Your task to perform on an android device: Show me popular games on the Play Store Image 0: 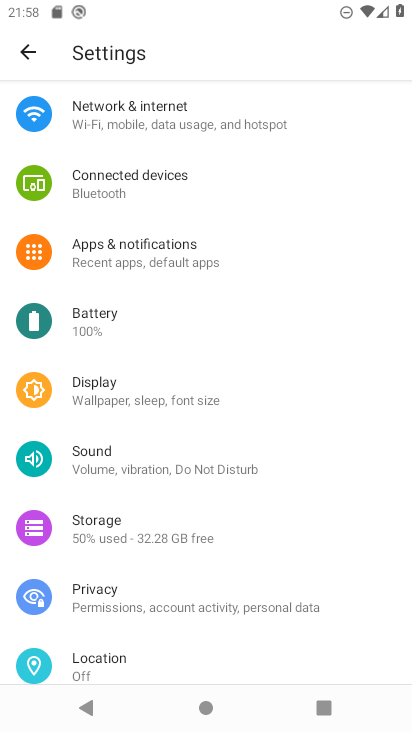
Step 0: press home button
Your task to perform on an android device: Show me popular games on the Play Store Image 1: 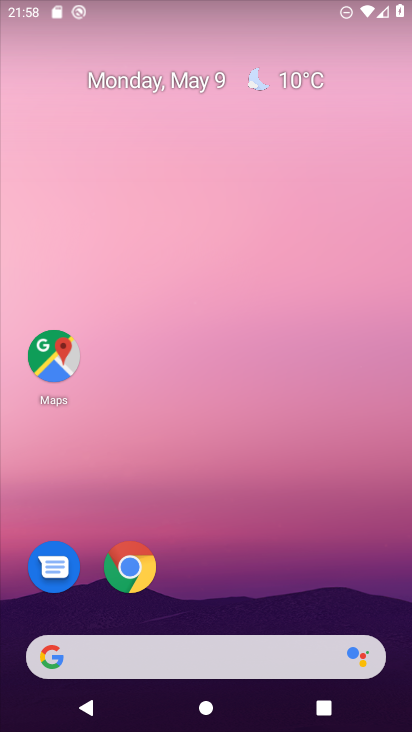
Step 1: drag from (150, 490) to (178, 45)
Your task to perform on an android device: Show me popular games on the Play Store Image 2: 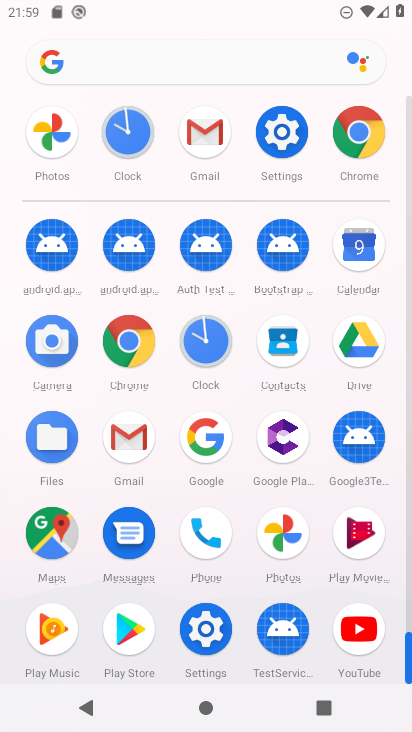
Step 2: click (127, 621)
Your task to perform on an android device: Show me popular games on the Play Store Image 3: 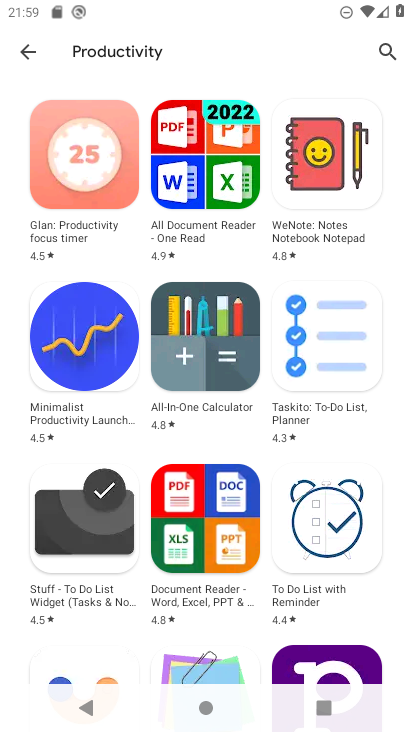
Step 3: click (28, 48)
Your task to perform on an android device: Show me popular games on the Play Store Image 4: 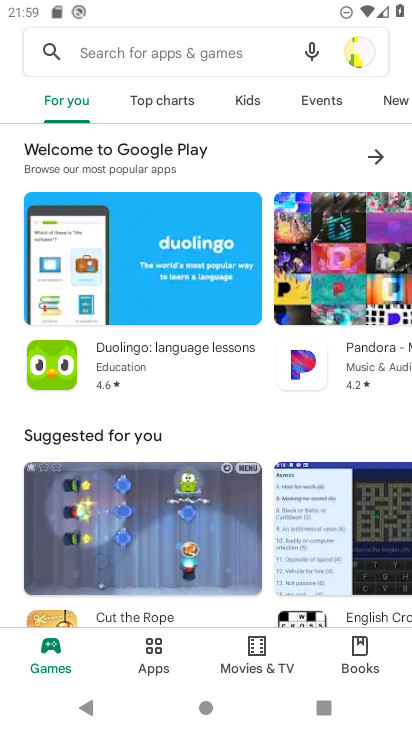
Step 4: drag from (143, 511) to (112, 149)
Your task to perform on an android device: Show me popular games on the Play Store Image 5: 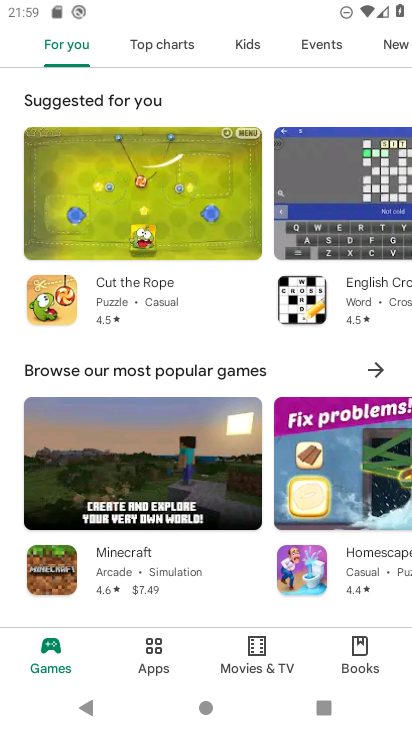
Step 5: click (380, 366)
Your task to perform on an android device: Show me popular games on the Play Store Image 6: 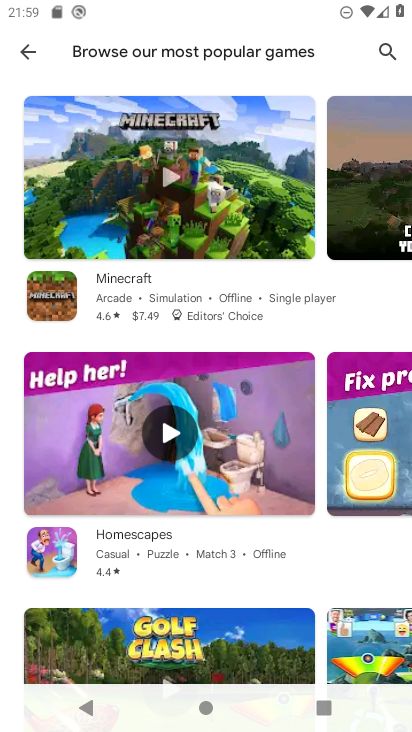
Step 6: task complete